Your task to perform on an android device: toggle notification dots Image 0: 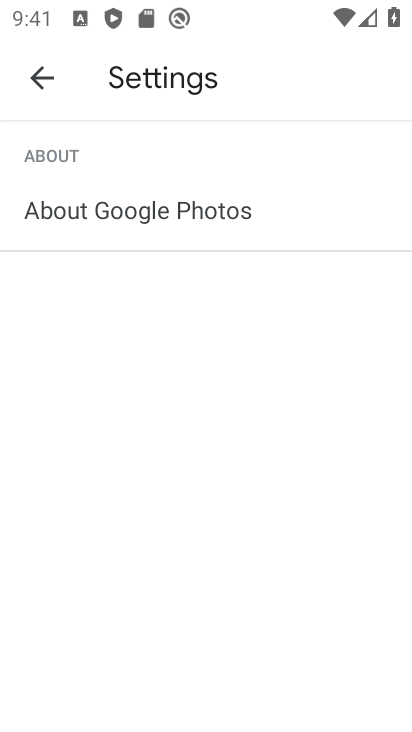
Step 0: press back button
Your task to perform on an android device: toggle notification dots Image 1: 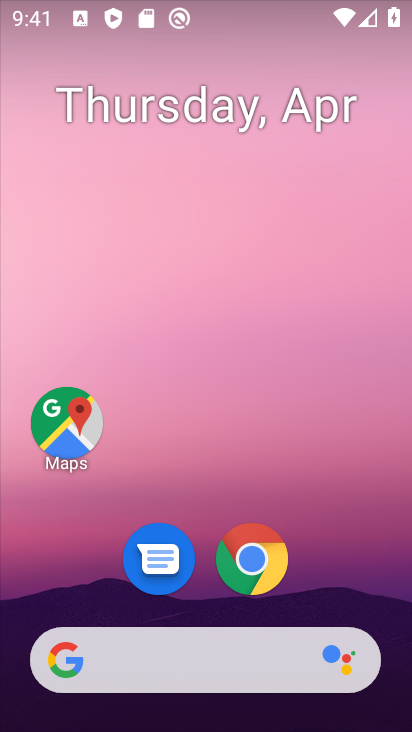
Step 1: drag from (207, 671) to (162, 35)
Your task to perform on an android device: toggle notification dots Image 2: 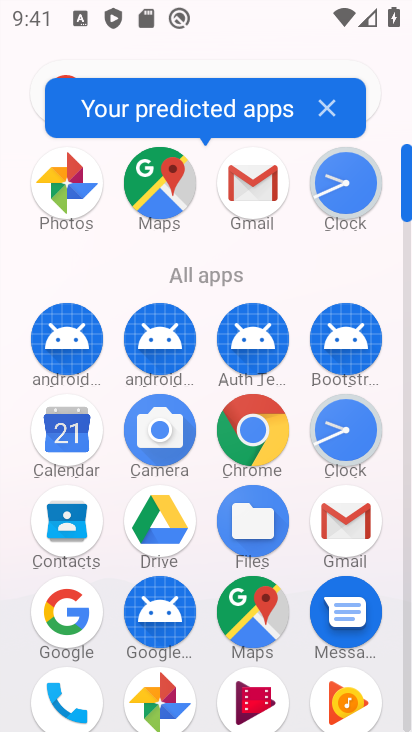
Step 2: drag from (195, 517) to (158, 12)
Your task to perform on an android device: toggle notification dots Image 3: 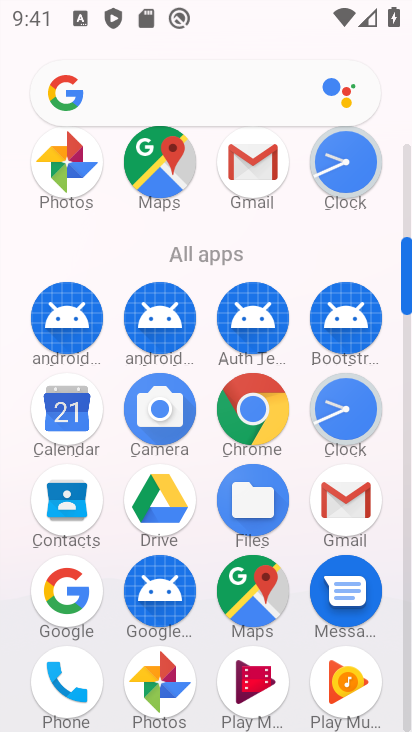
Step 3: drag from (214, 628) to (148, 81)
Your task to perform on an android device: toggle notification dots Image 4: 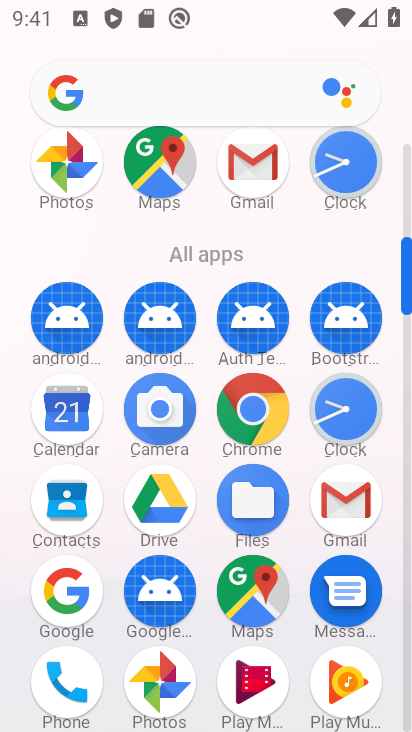
Step 4: drag from (213, 551) to (126, 18)
Your task to perform on an android device: toggle notification dots Image 5: 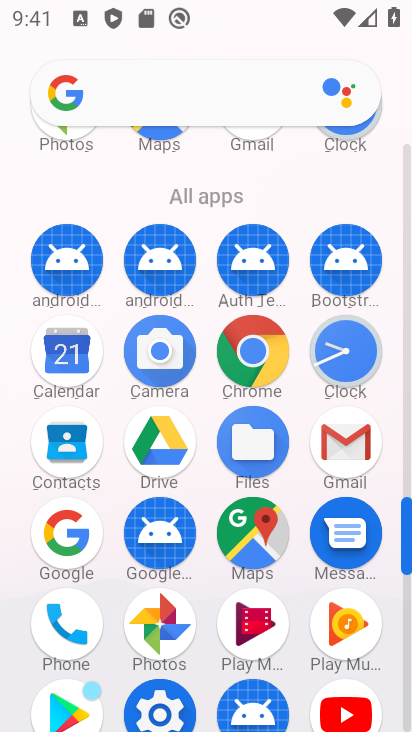
Step 5: click (164, 697)
Your task to perform on an android device: toggle notification dots Image 6: 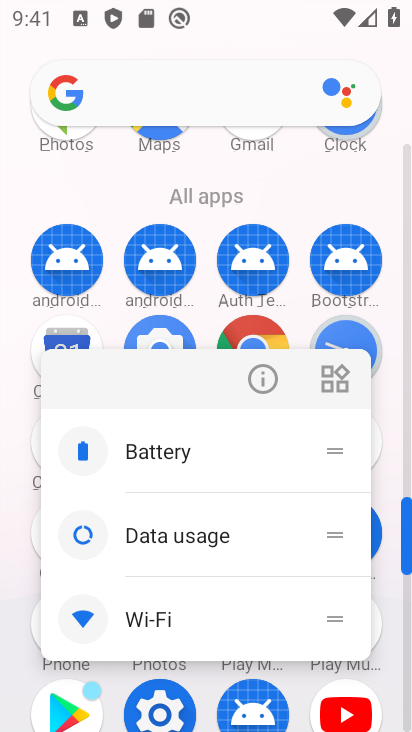
Step 6: click (172, 690)
Your task to perform on an android device: toggle notification dots Image 7: 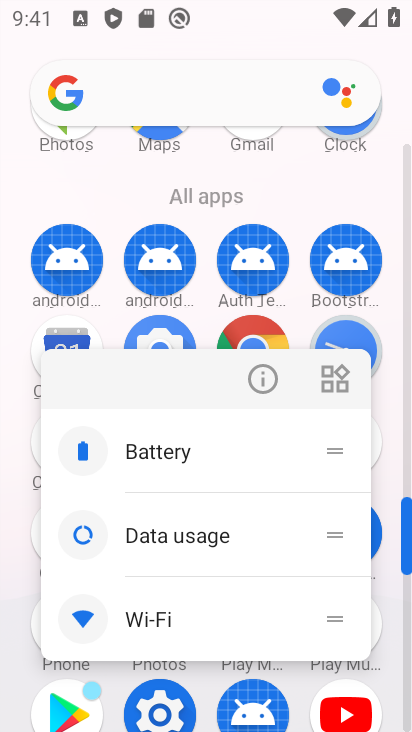
Step 7: click (145, 710)
Your task to perform on an android device: toggle notification dots Image 8: 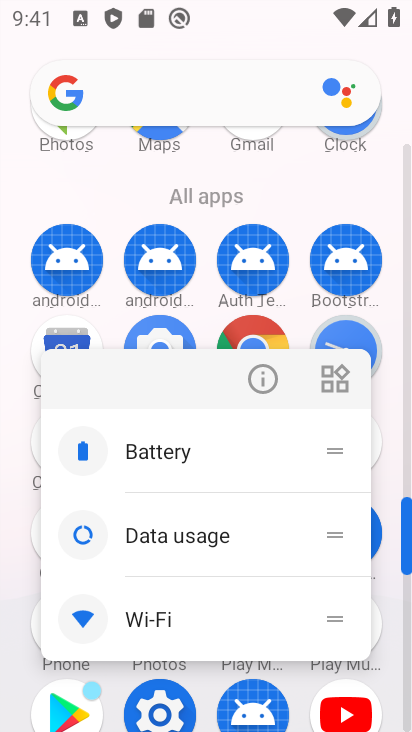
Step 8: click (145, 710)
Your task to perform on an android device: toggle notification dots Image 9: 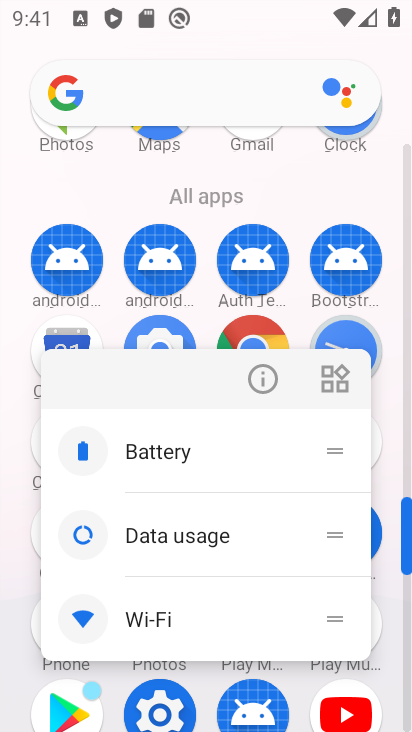
Step 9: click (145, 710)
Your task to perform on an android device: toggle notification dots Image 10: 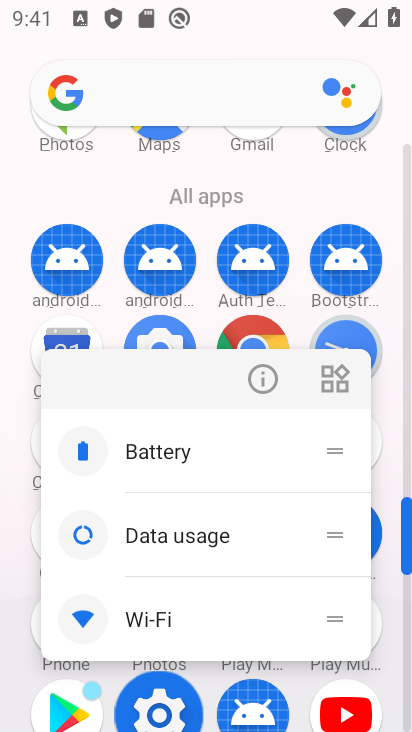
Step 10: click (145, 710)
Your task to perform on an android device: toggle notification dots Image 11: 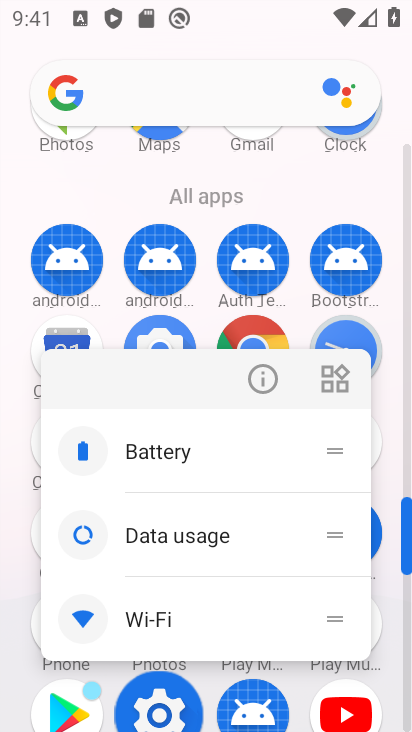
Step 11: click (145, 710)
Your task to perform on an android device: toggle notification dots Image 12: 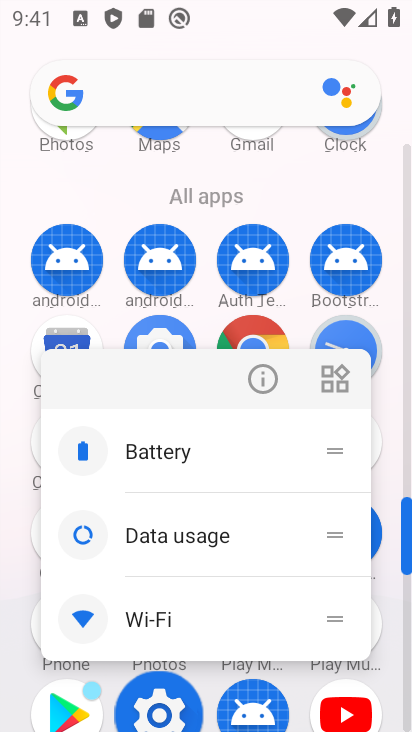
Step 12: click (145, 710)
Your task to perform on an android device: toggle notification dots Image 13: 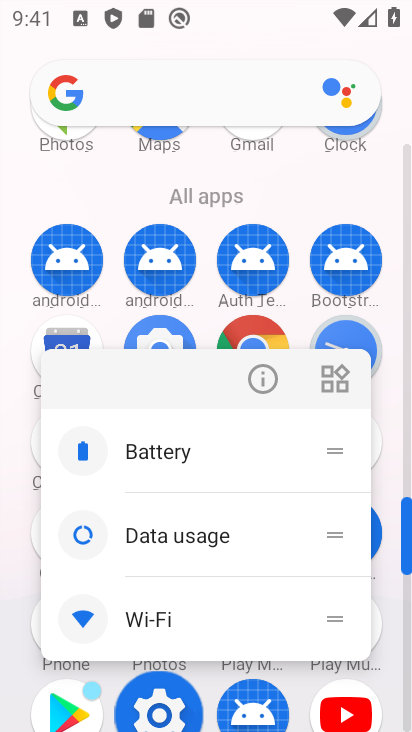
Step 13: click (145, 710)
Your task to perform on an android device: toggle notification dots Image 14: 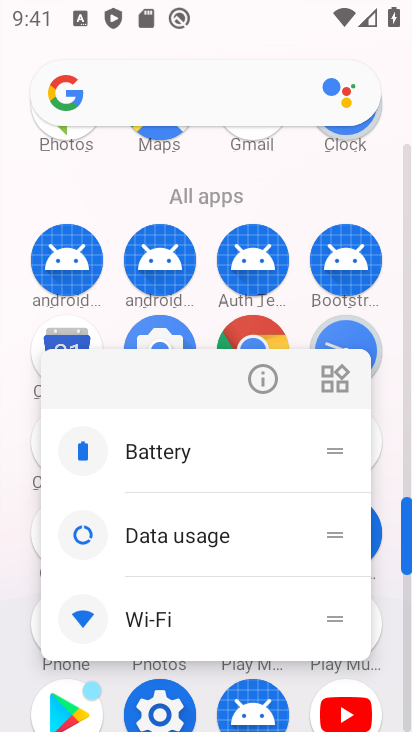
Step 14: click (205, 706)
Your task to perform on an android device: toggle notification dots Image 15: 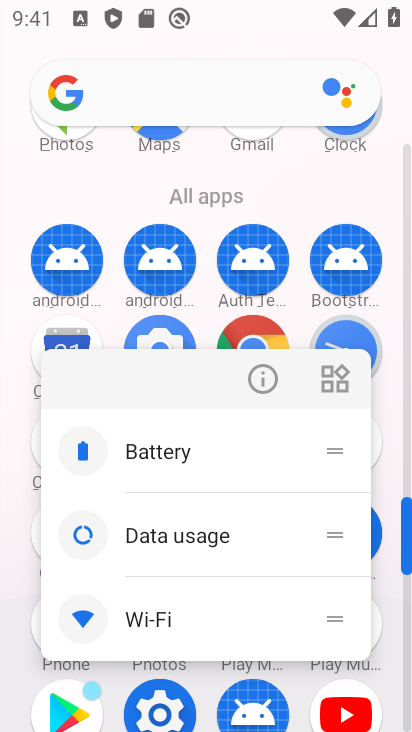
Step 15: click (175, 710)
Your task to perform on an android device: toggle notification dots Image 16: 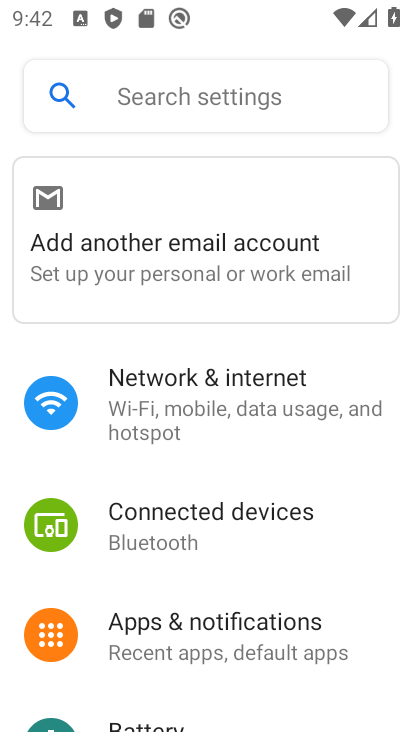
Step 16: drag from (296, 649) to (228, 170)
Your task to perform on an android device: toggle notification dots Image 17: 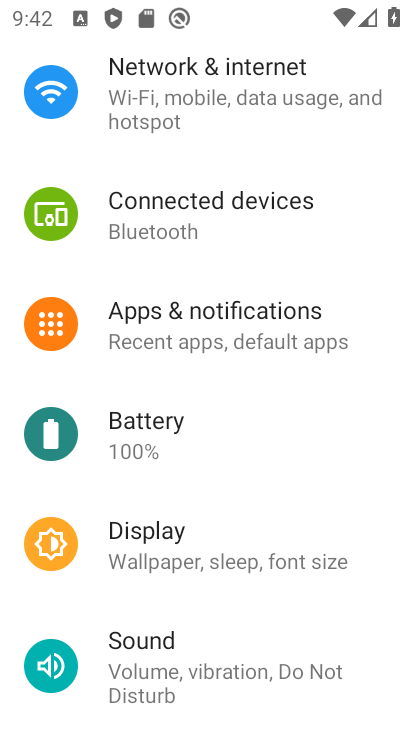
Step 17: click (269, 339)
Your task to perform on an android device: toggle notification dots Image 18: 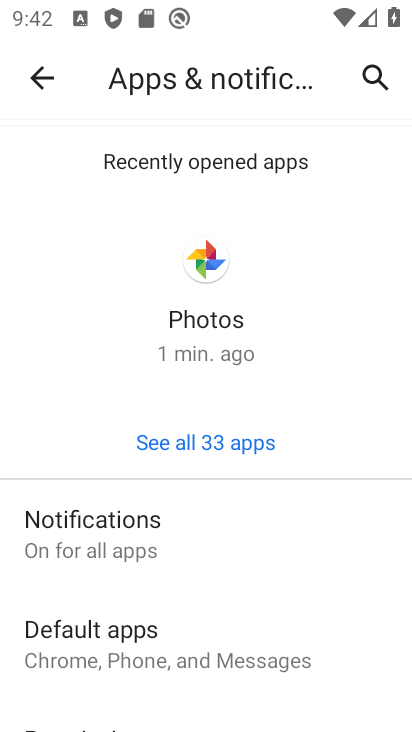
Step 18: click (226, 541)
Your task to perform on an android device: toggle notification dots Image 19: 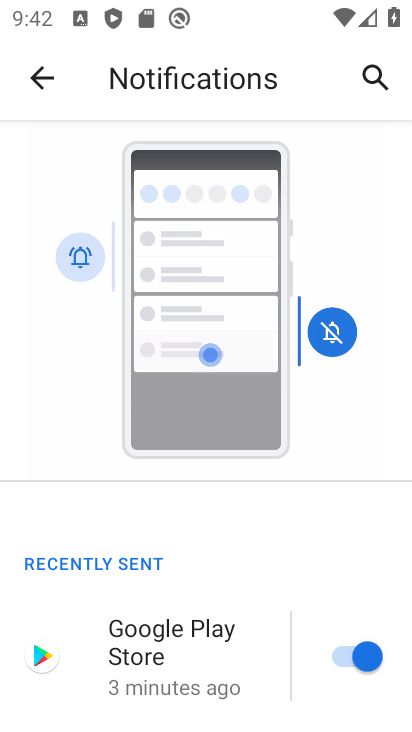
Step 19: drag from (342, 476) to (340, 102)
Your task to perform on an android device: toggle notification dots Image 20: 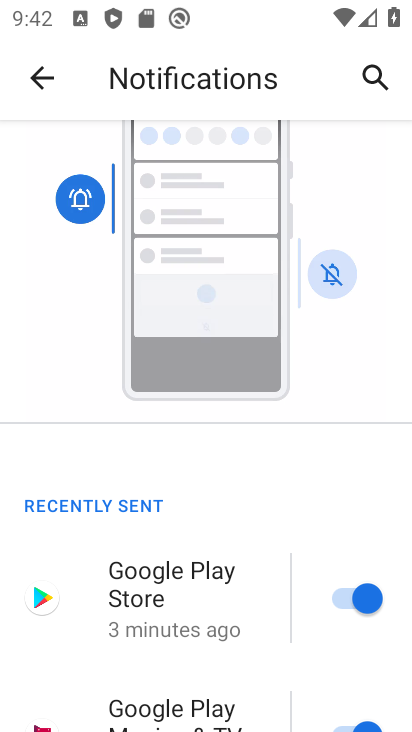
Step 20: drag from (318, 538) to (322, 143)
Your task to perform on an android device: toggle notification dots Image 21: 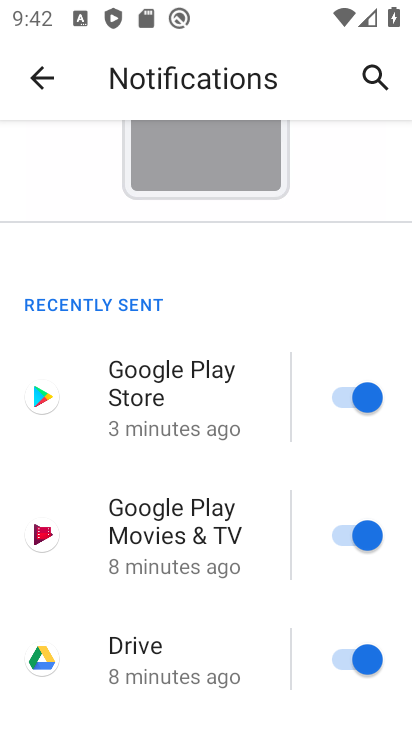
Step 21: drag from (298, 573) to (208, 41)
Your task to perform on an android device: toggle notification dots Image 22: 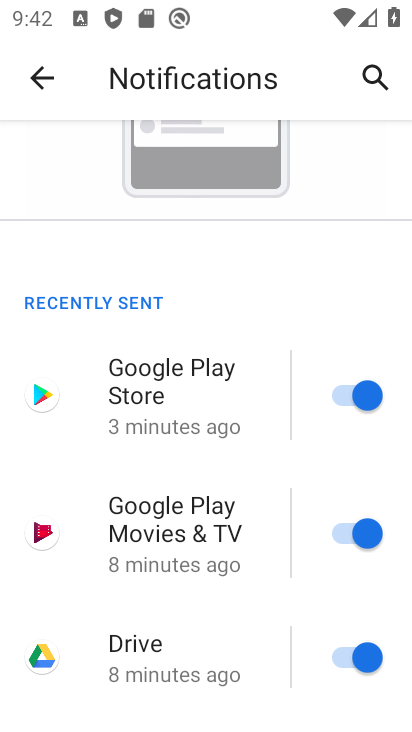
Step 22: drag from (58, 261) to (72, 17)
Your task to perform on an android device: toggle notification dots Image 23: 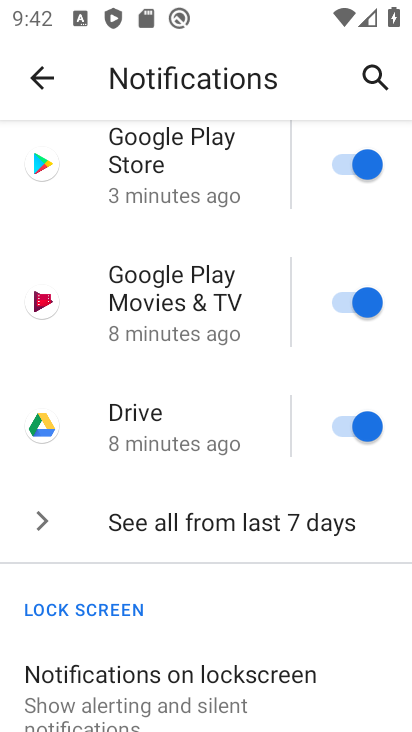
Step 23: drag from (226, 622) to (204, 63)
Your task to perform on an android device: toggle notification dots Image 24: 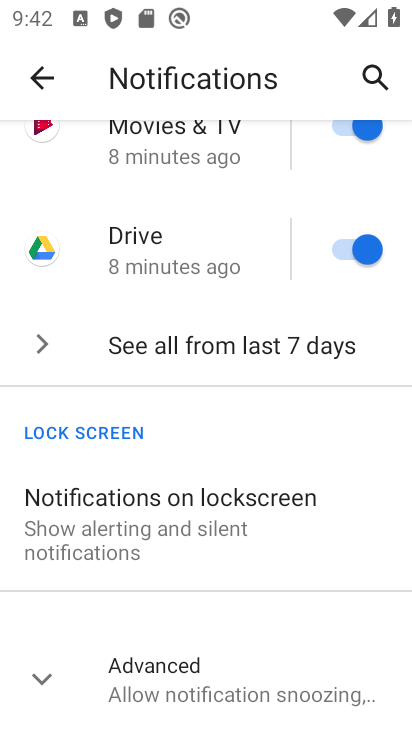
Step 24: click (286, 681)
Your task to perform on an android device: toggle notification dots Image 25: 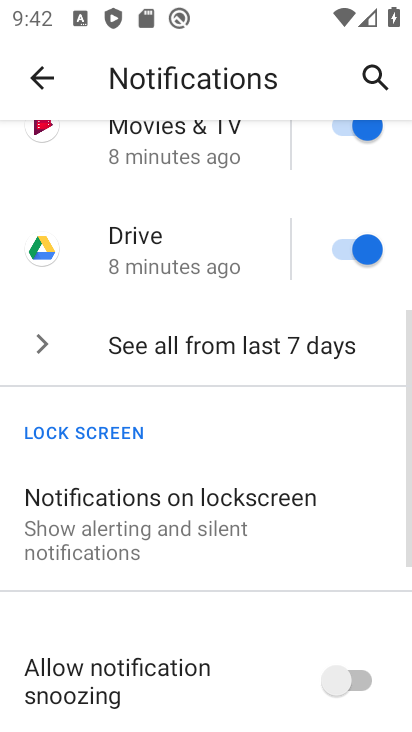
Step 25: drag from (244, 630) to (167, 124)
Your task to perform on an android device: toggle notification dots Image 26: 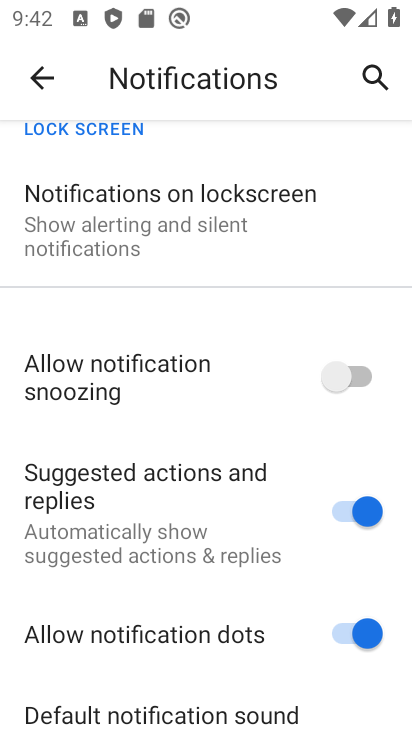
Step 26: drag from (292, 666) to (196, 129)
Your task to perform on an android device: toggle notification dots Image 27: 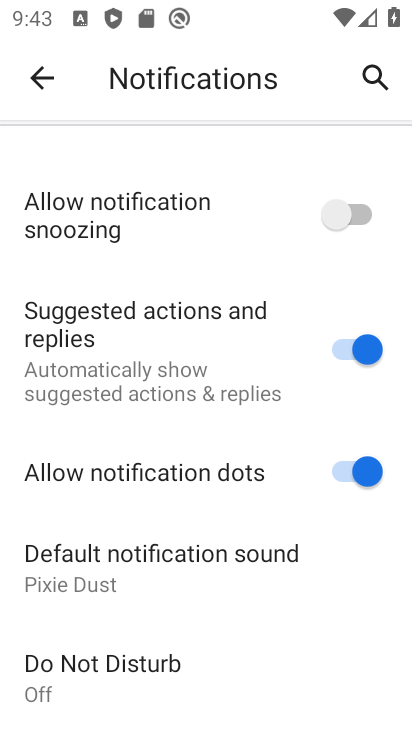
Step 27: click (360, 474)
Your task to perform on an android device: toggle notification dots Image 28: 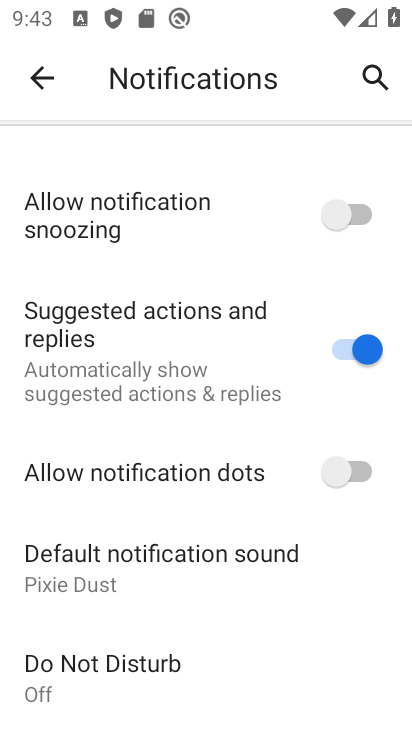
Step 28: task complete